Your task to perform on an android device: turn off airplane mode Image 0: 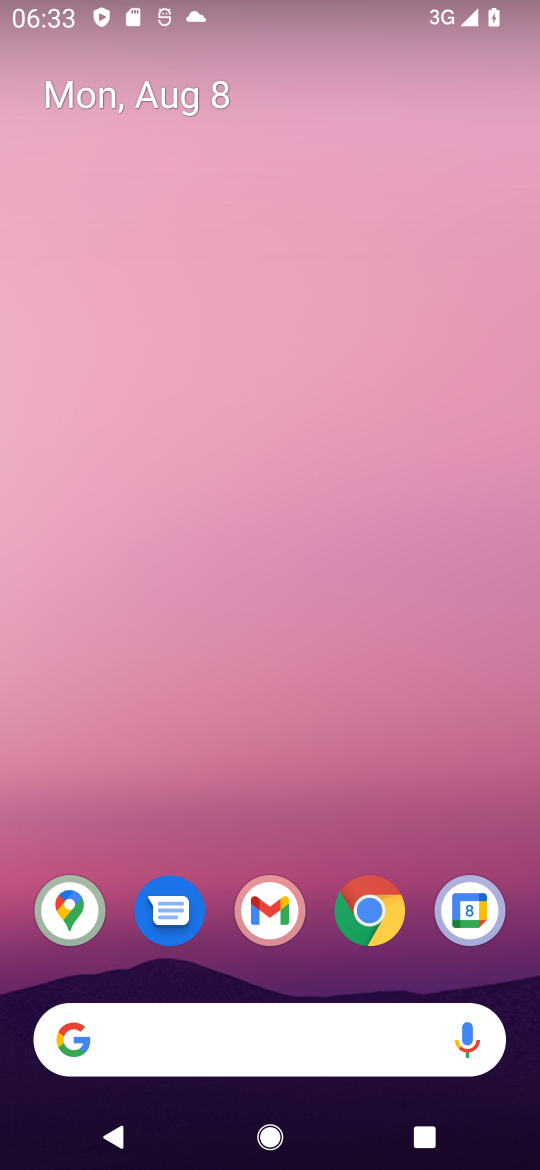
Step 0: drag from (311, 1035) to (205, 170)
Your task to perform on an android device: turn off airplane mode Image 1: 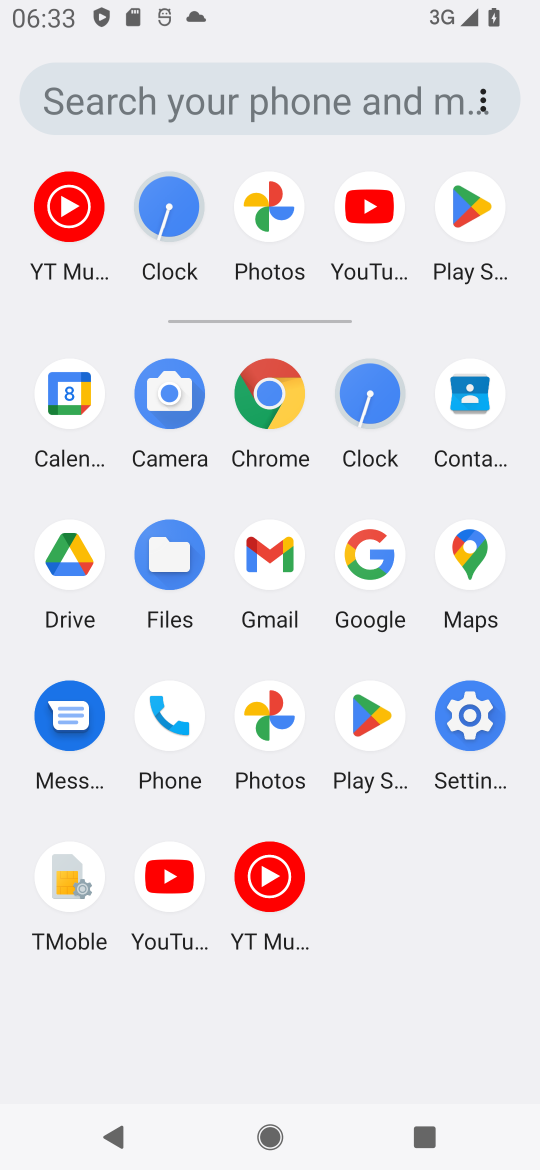
Step 1: click (470, 714)
Your task to perform on an android device: turn off airplane mode Image 2: 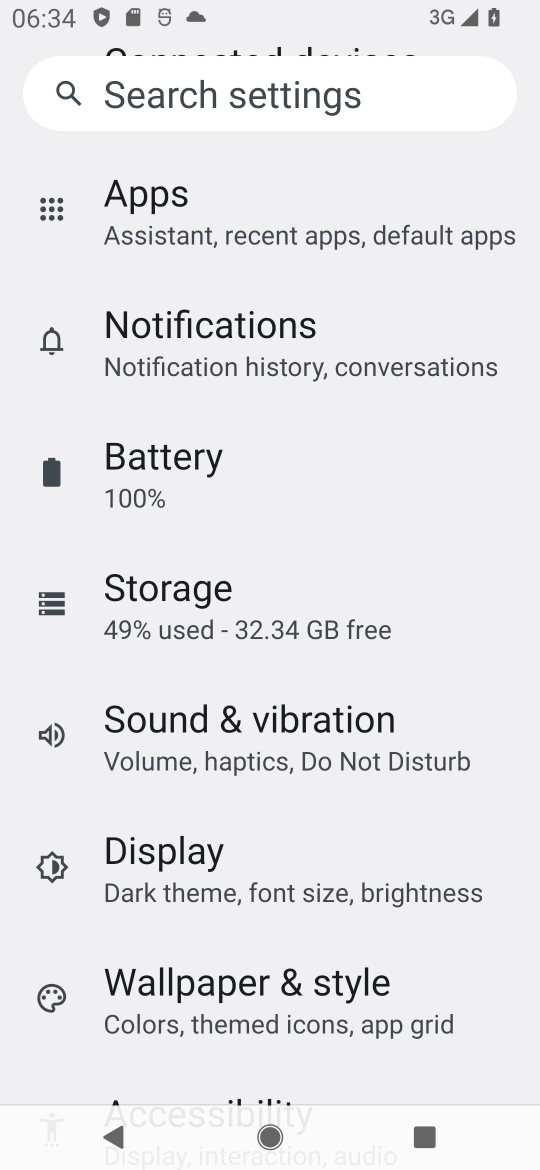
Step 2: drag from (372, 476) to (372, 637)
Your task to perform on an android device: turn off airplane mode Image 3: 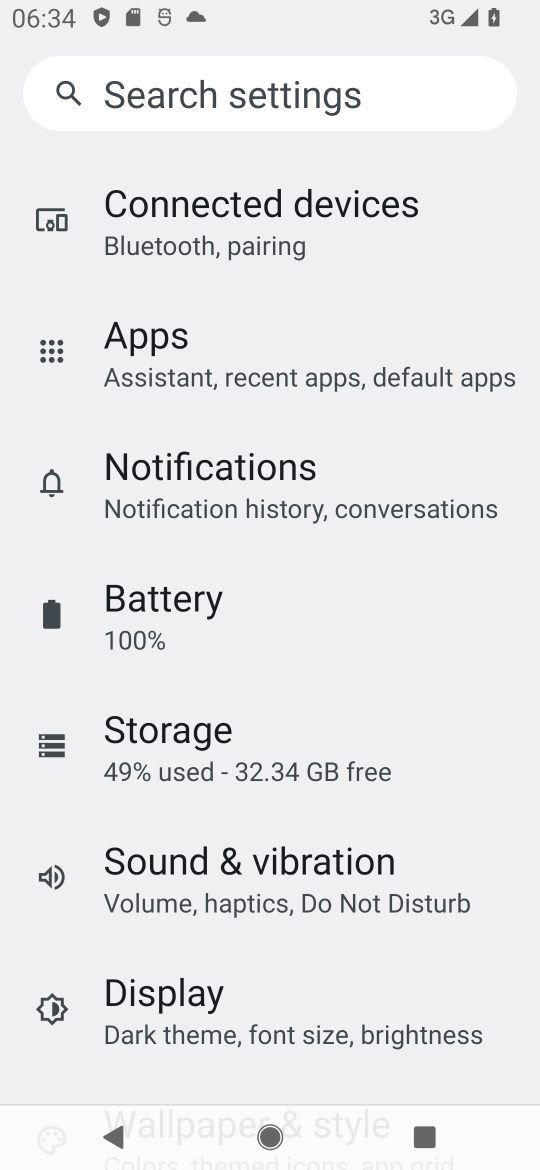
Step 3: drag from (366, 412) to (382, 618)
Your task to perform on an android device: turn off airplane mode Image 4: 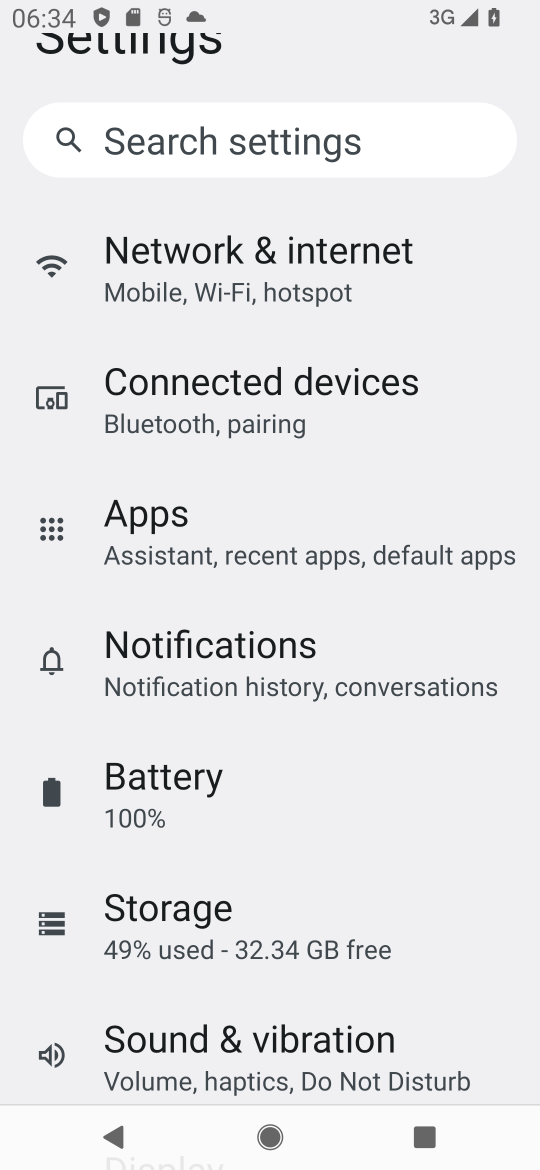
Step 4: drag from (307, 469) to (293, 679)
Your task to perform on an android device: turn off airplane mode Image 5: 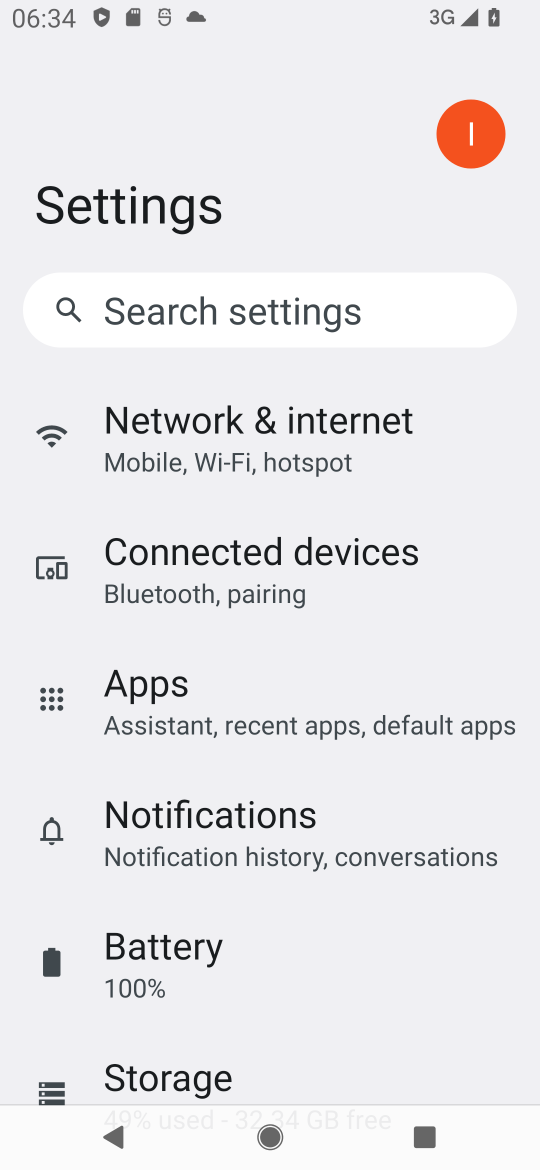
Step 5: click (263, 440)
Your task to perform on an android device: turn off airplane mode Image 6: 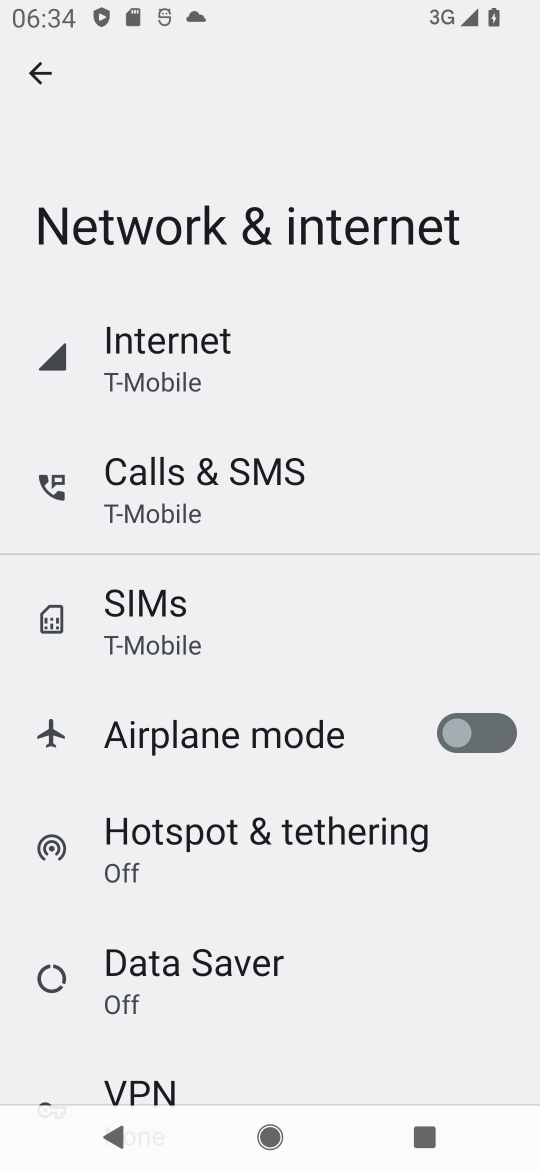
Step 6: task complete